Your task to perform on an android device: What's the weather going to be tomorrow? Image 0: 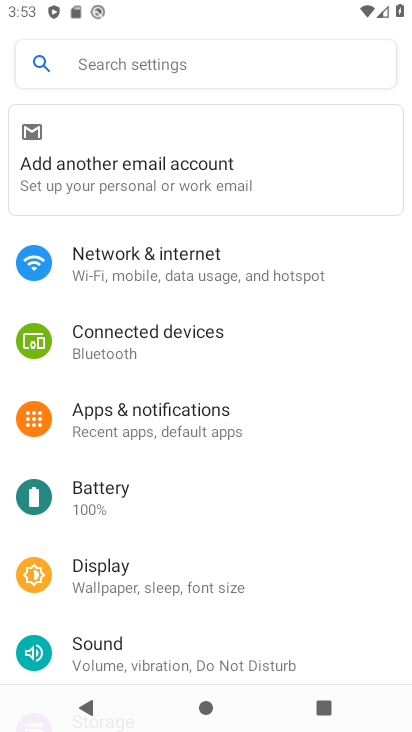
Step 0: press home button
Your task to perform on an android device: What's the weather going to be tomorrow? Image 1: 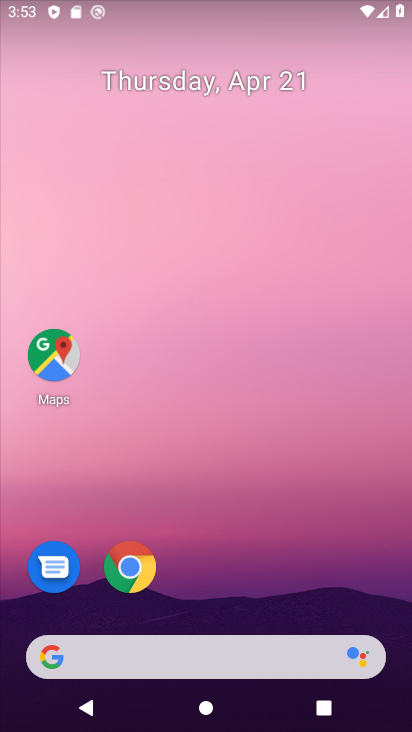
Step 1: drag from (275, 310) to (209, 52)
Your task to perform on an android device: What's the weather going to be tomorrow? Image 2: 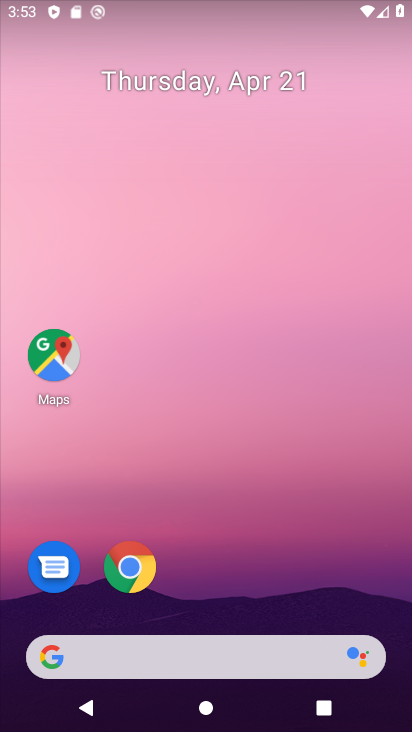
Step 2: drag from (272, 694) to (172, 112)
Your task to perform on an android device: What's the weather going to be tomorrow? Image 3: 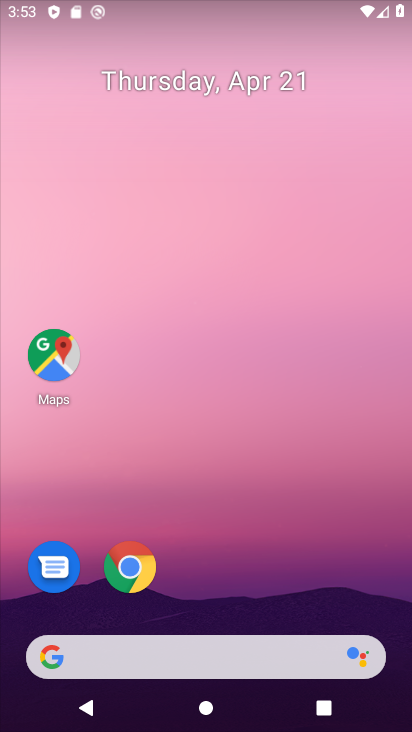
Step 3: drag from (219, 514) to (89, 25)
Your task to perform on an android device: What's the weather going to be tomorrow? Image 4: 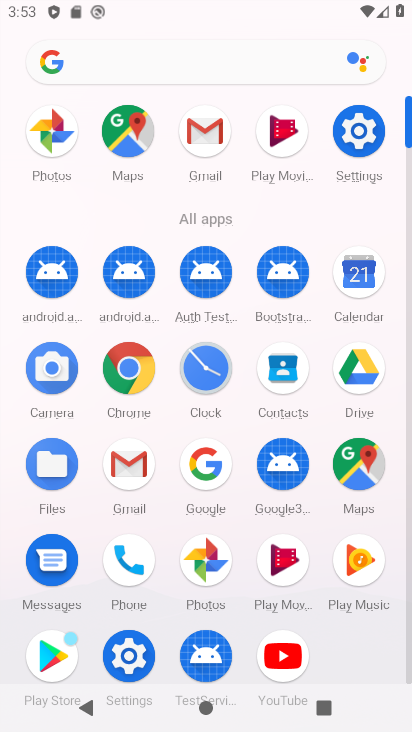
Step 4: press home button
Your task to perform on an android device: What's the weather going to be tomorrow? Image 5: 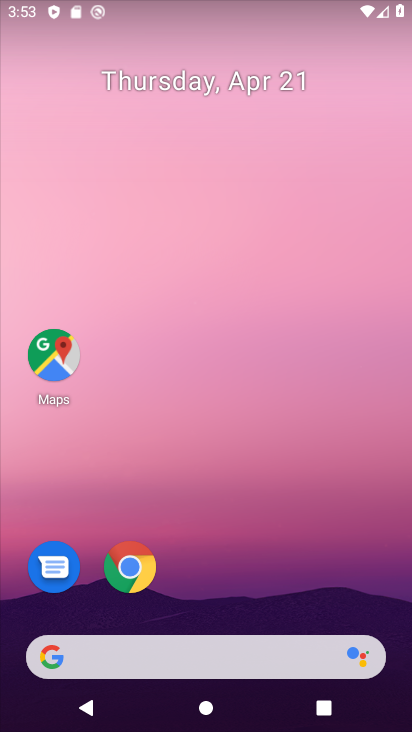
Step 5: drag from (14, 235) to (377, 310)
Your task to perform on an android device: What's the weather going to be tomorrow? Image 6: 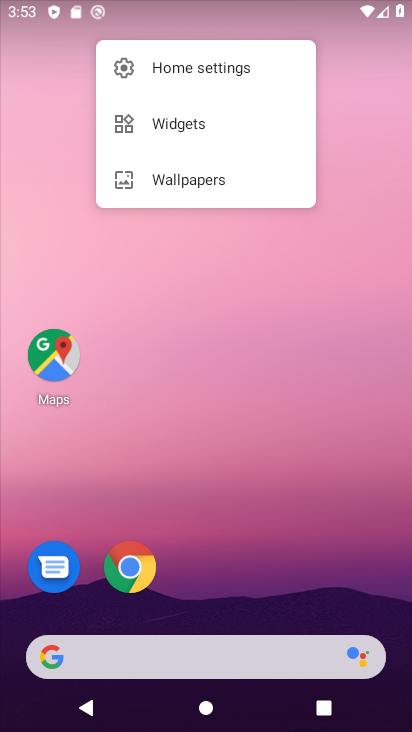
Step 6: drag from (72, 283) to (405, 159)
Your task to perform on an android device: What's the weather going to be tomorrow? Image 7: 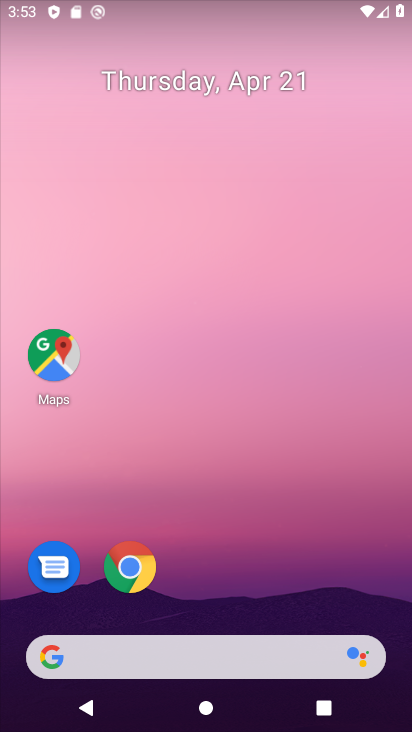
Step 7: drag from (2, 265) to (373, 233)
Your task to perform on an android device: What's the weather going to be tomorrow? Image 8: 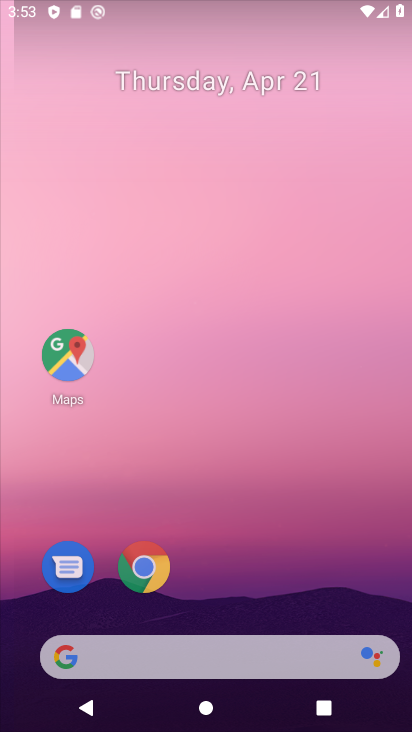
Step 8: drag from (407, 218) to (371, 223)
Your task to perform on an android device: What's the weather going to be tomorrow? Image 9: 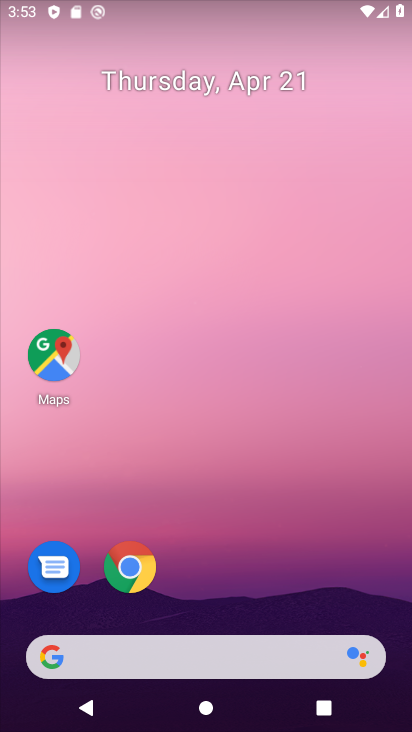
Step 9: drag from (248, 335) to (394, 344)
Your task to perform on an android device: What's the weather going to be tomorrow? Image 10: 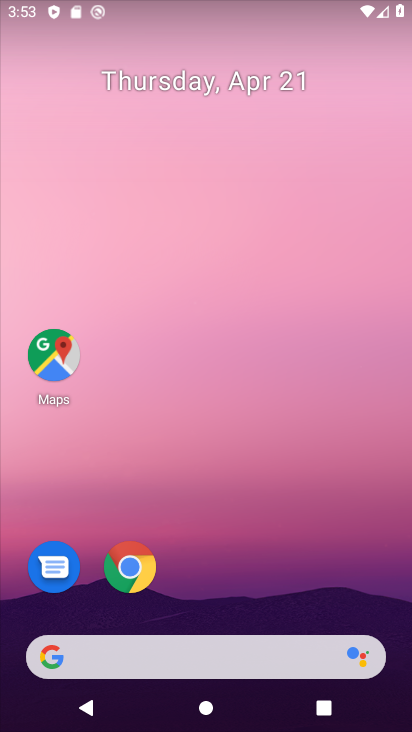
Step 10: click (392, 208)
Your task to perform on an android device: What's the weather going to be tomorrow? Image 11: 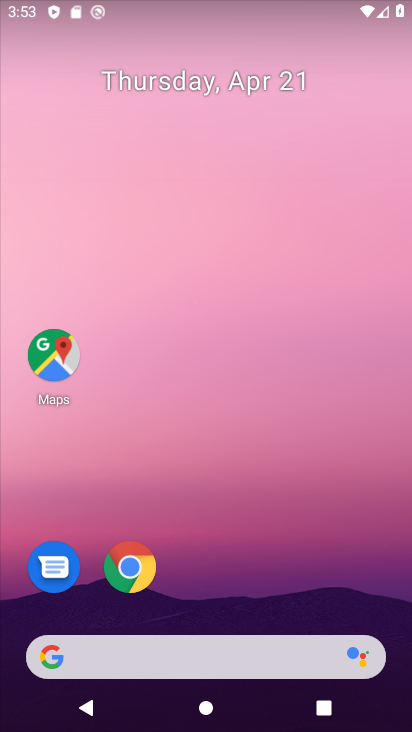
Step 11: drag from (83, 178) to (261, 198)
Your task to perform on an android device: What's the weather going to be tomorrow? Image 12: 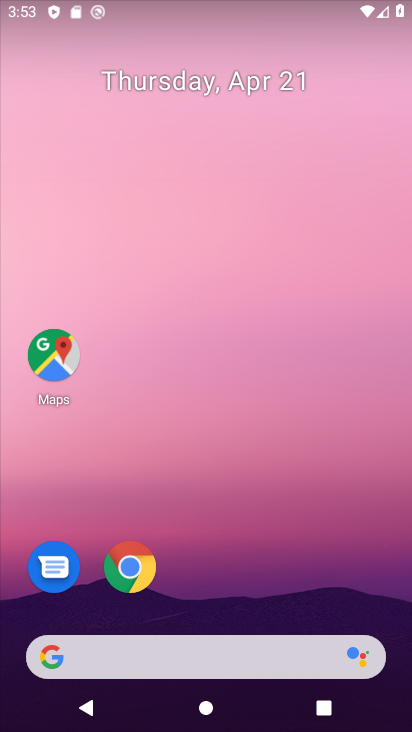
Step 12: drag from (29, 205) to (273, 291)
Your task to perform on an android device: What's the weather going to be tomorrow? Image 13: 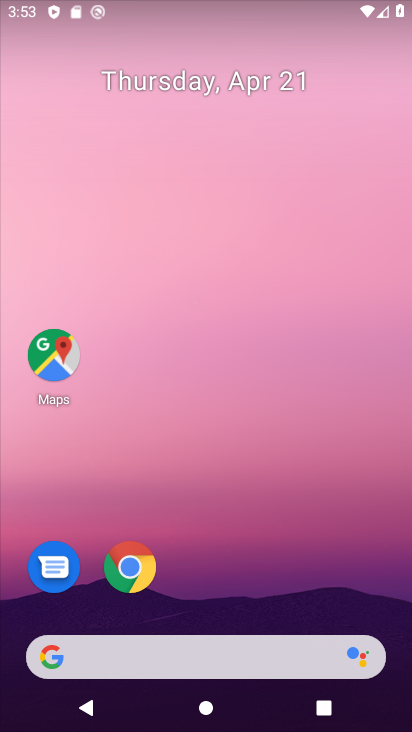
Step 13: drag from (98, 235) to (408, 244)
Your task to perform on an android device: What's the weather going to be tomorrow? Image 14: 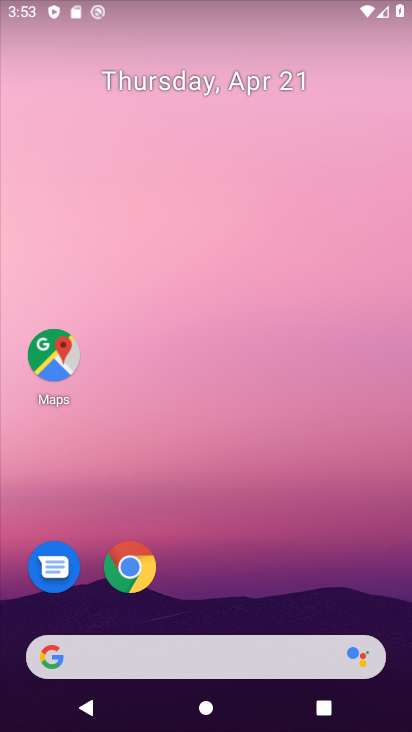
Step 14: drag from (23, 226) to (331, 309)
Your task to perform on an android device: What's the weather going to be tomorrow? Image 15: 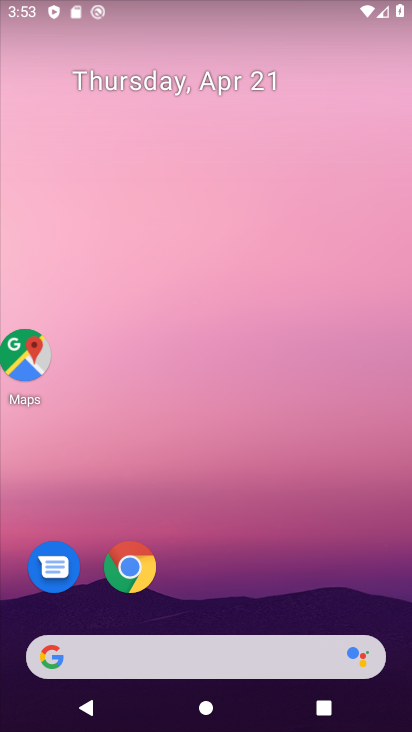
Step 15: drag from (411, 276) to (370, 321)
Your task to perform on an android device: What's the weather going to be tomorrow? Image 16: 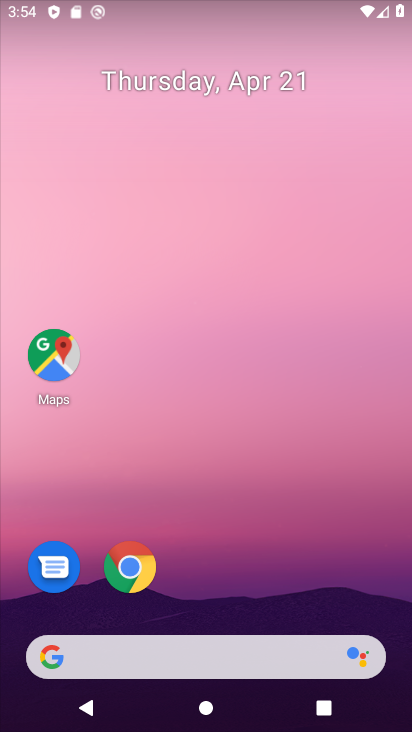
Step 16: click (407, 333)
Your task to perform on an android device: What's the weather going to be tomorrow? Image 17: 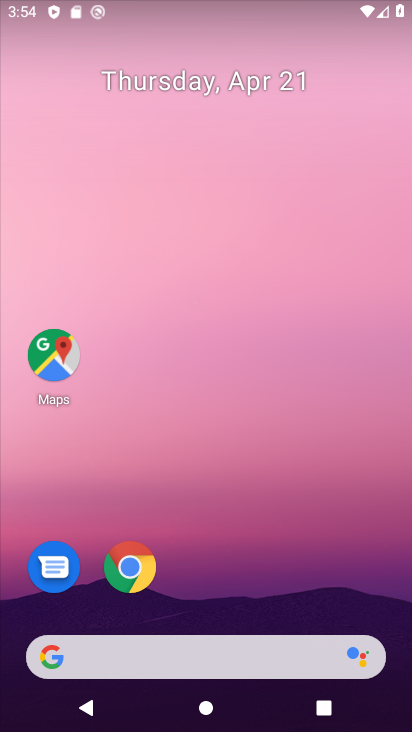
Step 17: drag from (102, 156) to (392, 270)
Your task to perform on an android device: What's the weather going to be tomorrow? Image 18: 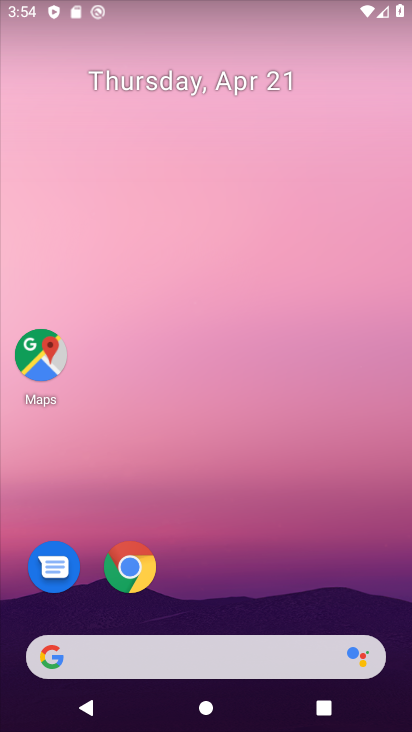
Step 18: click (75, 258)
Your task to perform on an android device: What's the weather going to be tomorrow? Image 19: 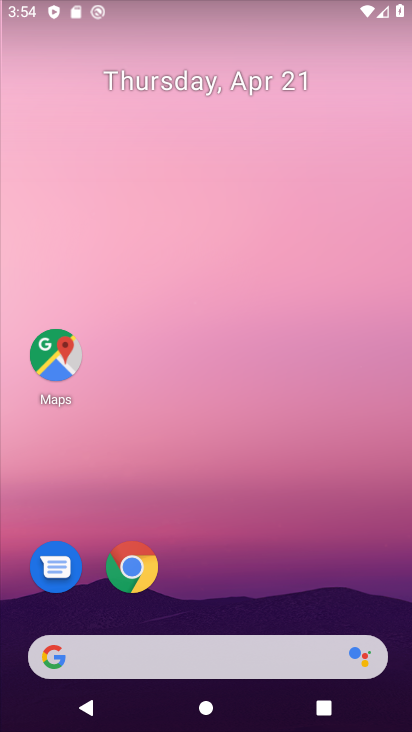
Step 19: drag from (370, 269) to (398, 244)
Your task to perform on an android device: What's the weather going to be tomorrow? Image 20: 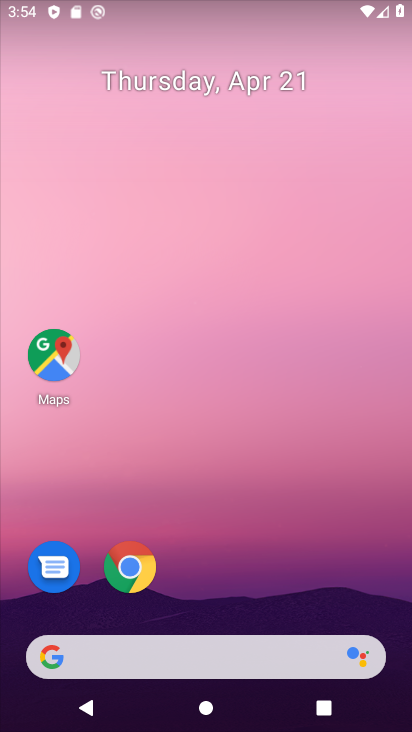
Step 20: drag from (143, 282) to (194, 330)
Your task to perform on an android device: What's the weather going to be tomorrow? Image 21: 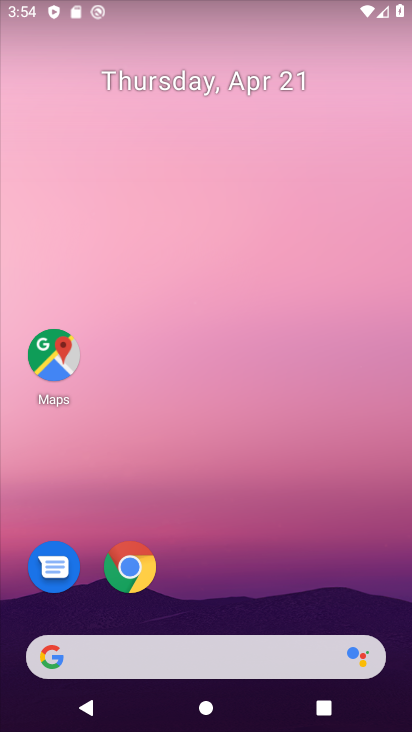
Step 21: drag from (26, 232) to (264, 274)
Your task to perform on an android device: What's the weather going to be tomorrow? Image 22: 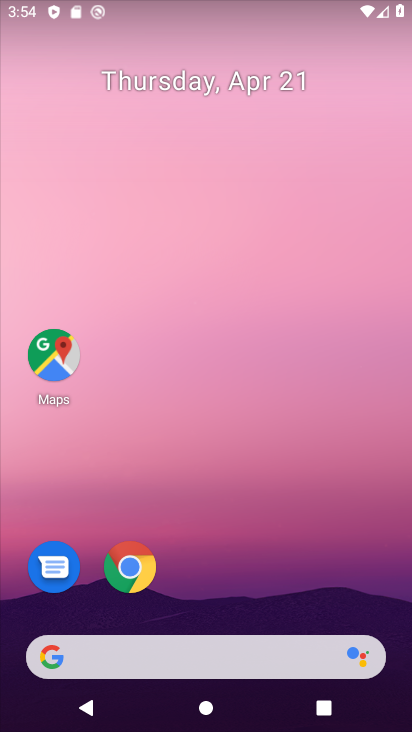
Step 22: drag from (11, 226) to (291, 262)
Your task to perform on an android device: What's the weather going to be tomorrow? Image 23: 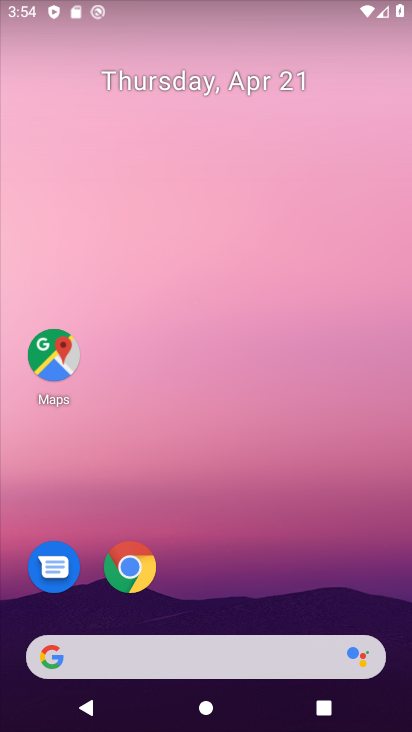
Step 23: drag from (4, 198) to (347, 251)
Your task to perform on an android device: What's the weather going to be tomorrow? Image 24: 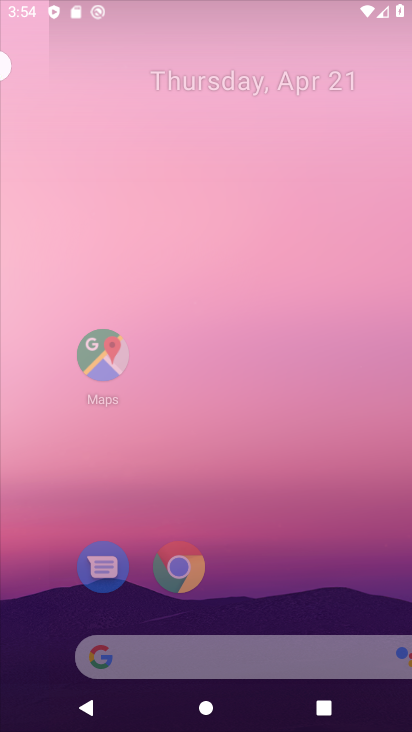
Step 24: drag from (100, 237) to (402, 287)
Your task to perform on an android device: What's the weather going to be tomorrow? Image 25: 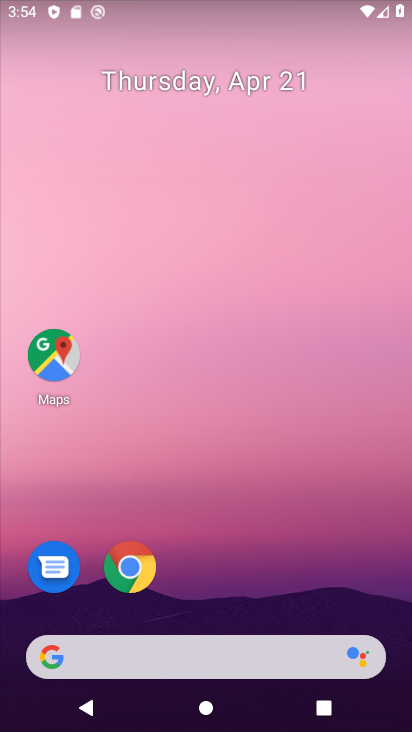
Step 25: drag from (0, 185) to (379, 190)
Your task to perform on an android device: What's the weather going to be tomorrow? Image 26: 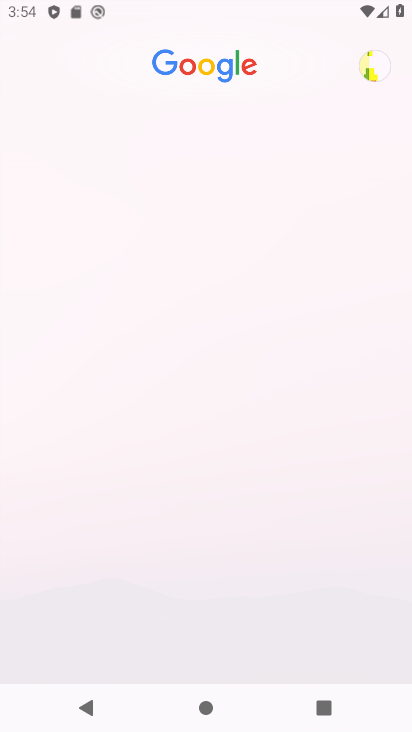
Step 26: drag from (94, 224) to (390, 215)
Your task to perform on an android device: What's the weather going to be tomorrow? Image 27: 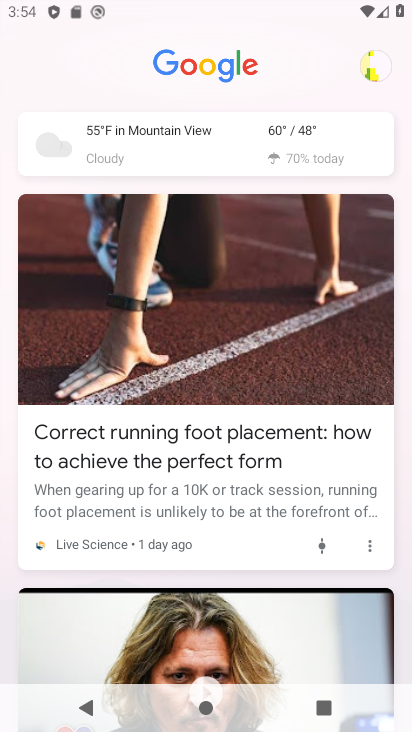
Step 27: click (288, 138)
Your task to perform on an android device: What's the weather going to be tomorrow? Image 28: 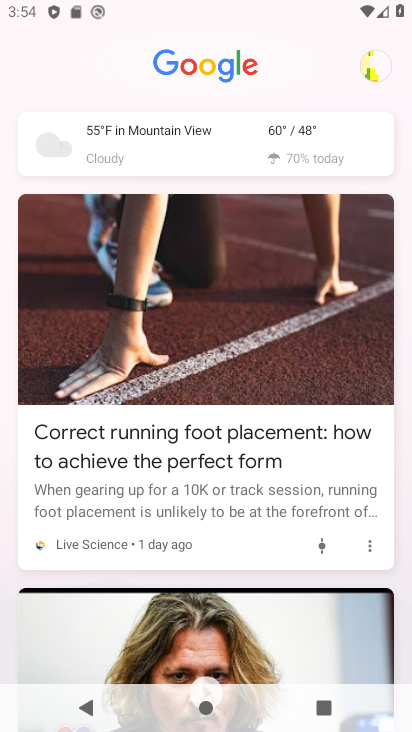
Step 28: click (180, 132)
Your task to perform on an android device: What's the weather going to be tomorrow? Image 29: 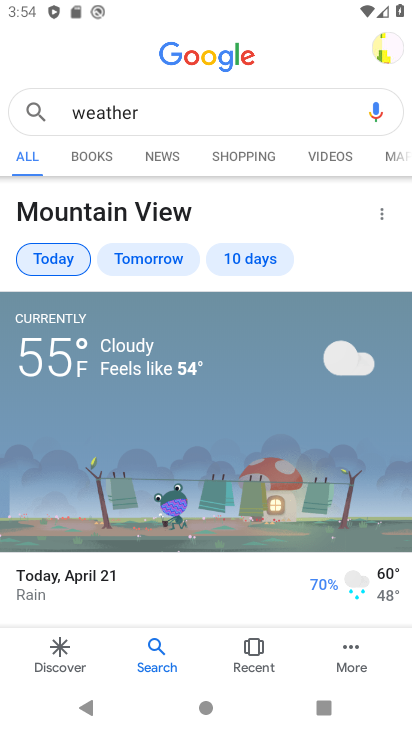
Step 29: click (150, 266)
Your task to perform on an android device: What's the weather going to be tomorrow? Image 30: 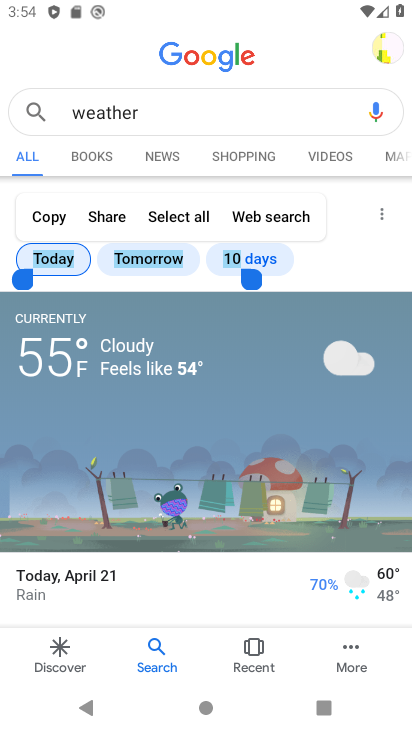
Step 30: click (145, 252)
Your task to perform on an android device: What's the weather going to be tomorrow? Image 31: 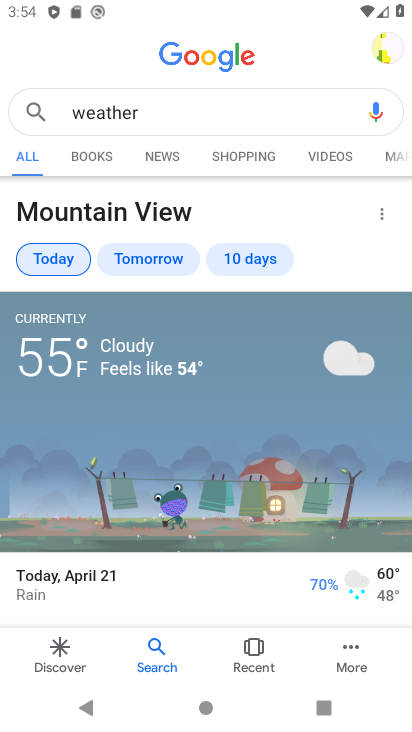
Step 31: click (156, 251)
Your task to perform on an android device: What's the weather going to be tomorrow? Image 32: 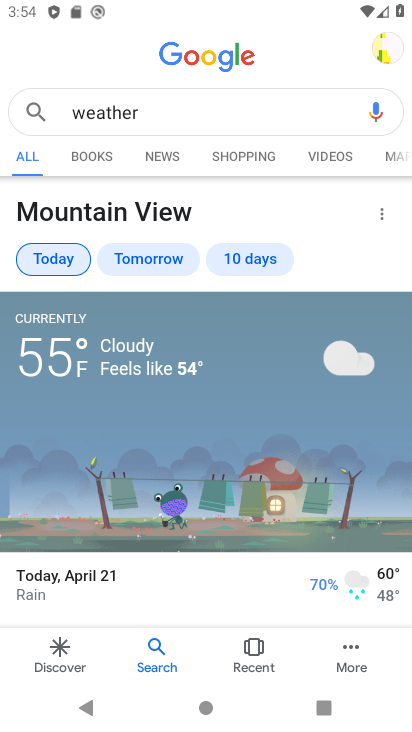
Step 32: task complete